Your task to perform on an android device: Go to settings Image 0: 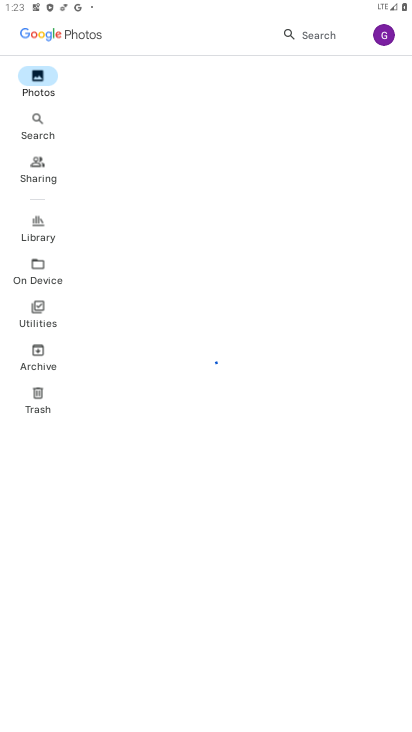
Step 0: press home button
Your task to perform on an android device: Go to settings Image 1: 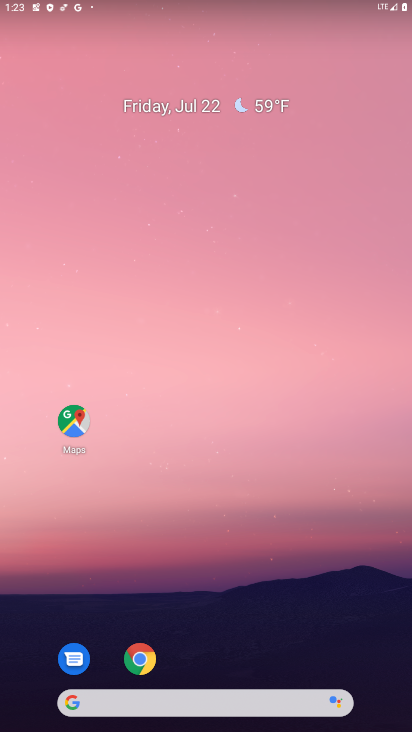
Step 1: drag from (239, 510) to (219, 24)
Your task to perform on an android device: Go to settings Image 2: 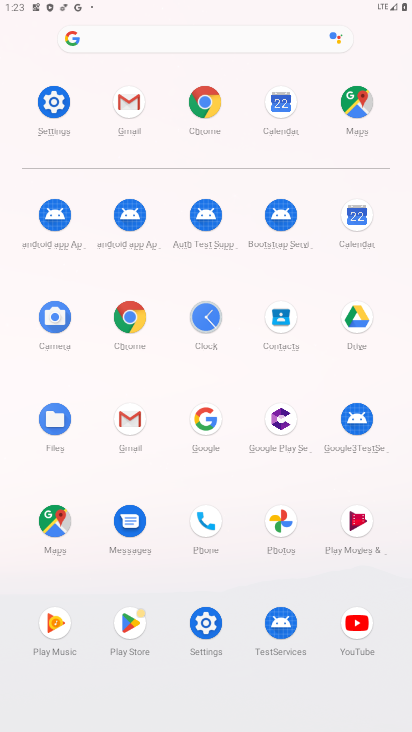
Step 2: click (50, 95)
Your task to perform on an android device: Go to settings Image 3: 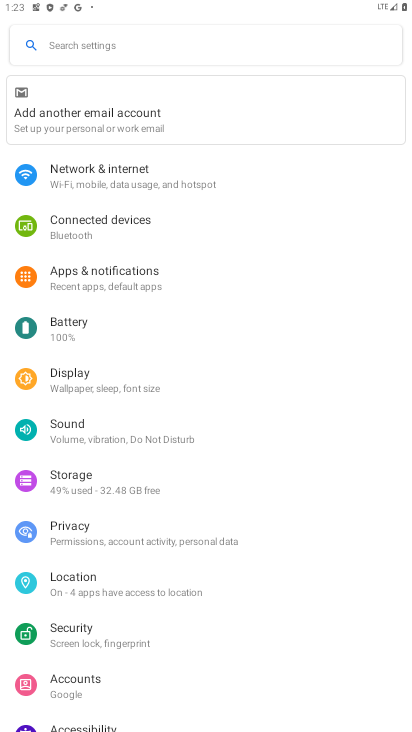
Step 3: task complete